Your task to perform on an android device: check google app version Image 0: 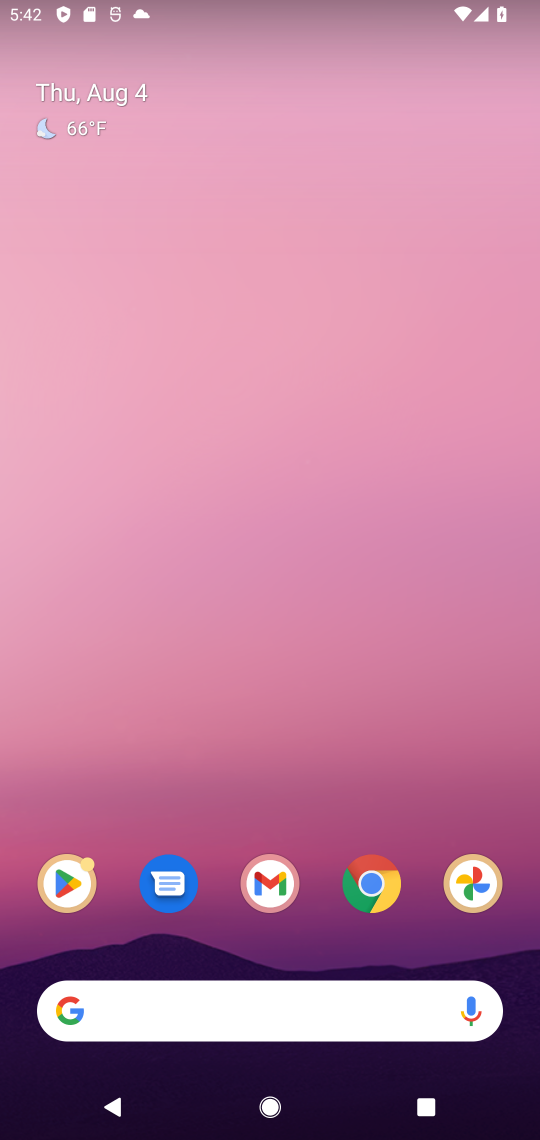
Step 0: drag from (219, 1072) to (319, 64)
Your task to perform on an android device: check google app version Image 1: 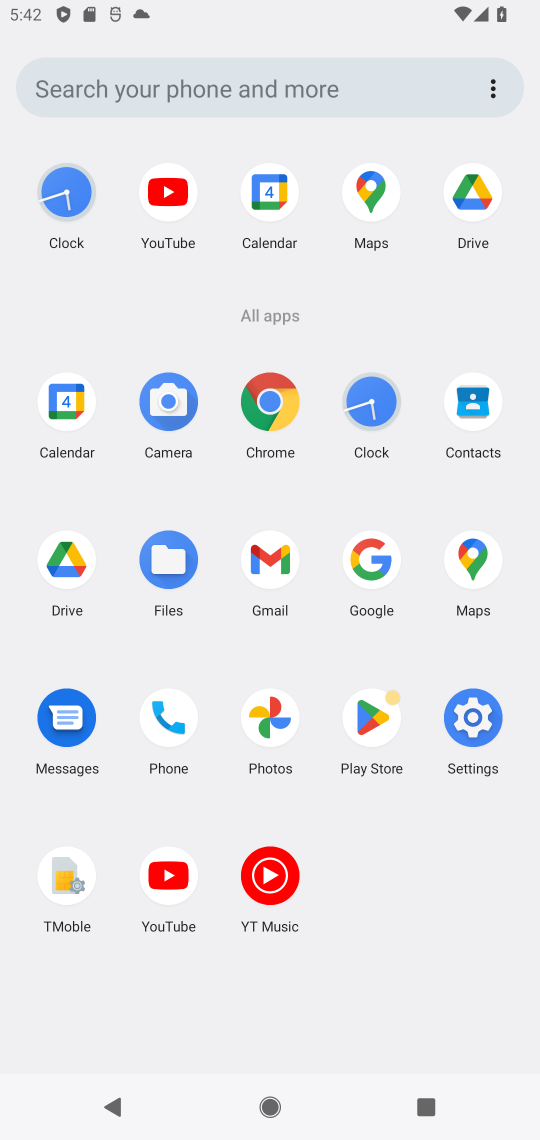
Step 1: click (363, 559)
Your task to perform on an android device: check google app version Image 2: 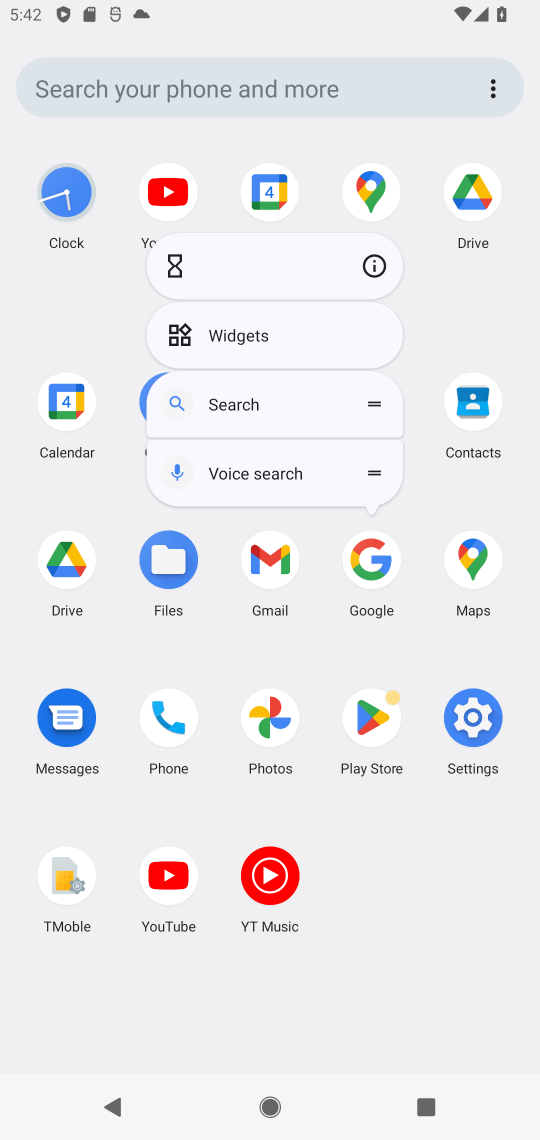
Step 2: click (371, 264)
Your task to perform on an android device: check google app version Image 3: 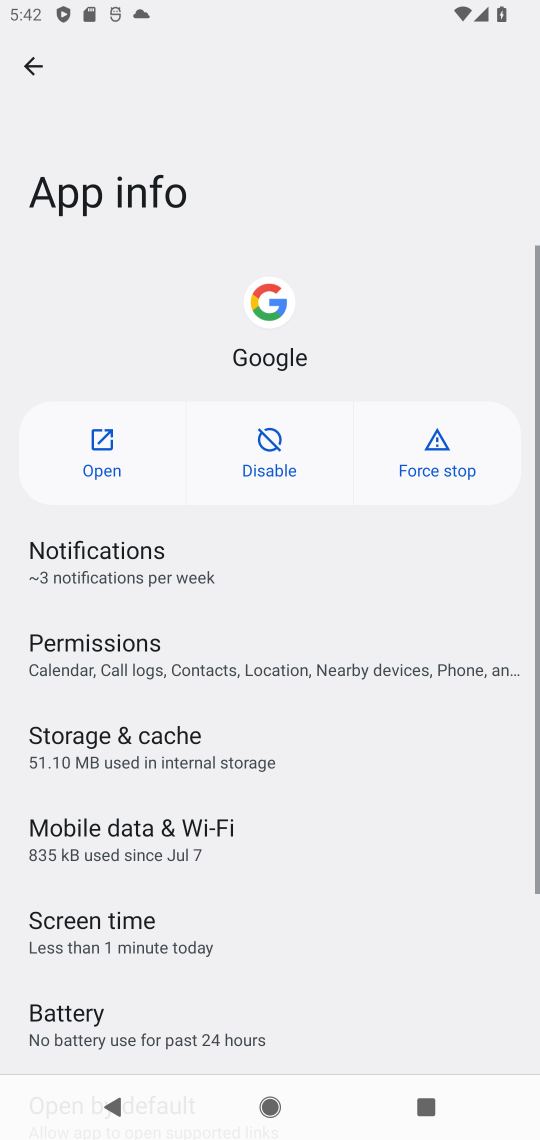
Step 3: task complete